Your task to perform on an android device: clear all cookies in the chrome app Image 0: 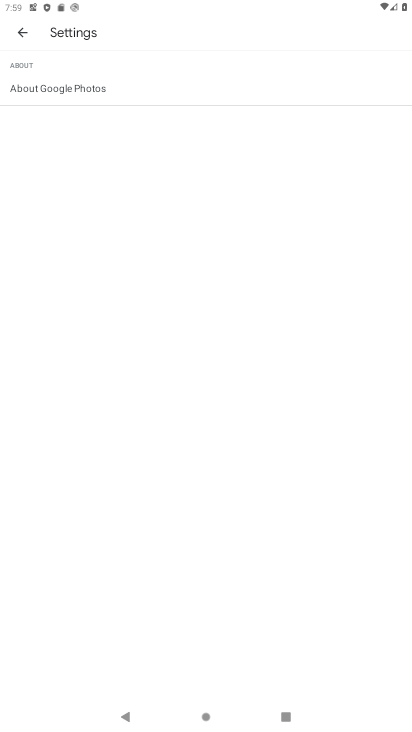
Step 0: press home button
Your task to perform on an android device: clear all cookies in the chrome app Image 1: 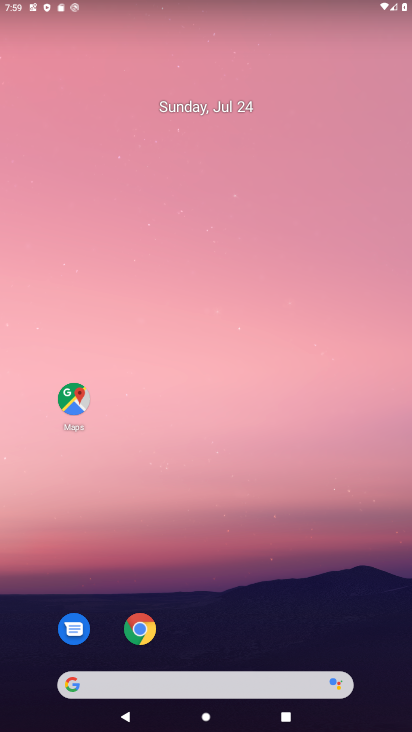
Step 1: drag from (190, 680) to (212, 2)
Your task to perform on an android device: clear all cookies in the chrome app Image 2: 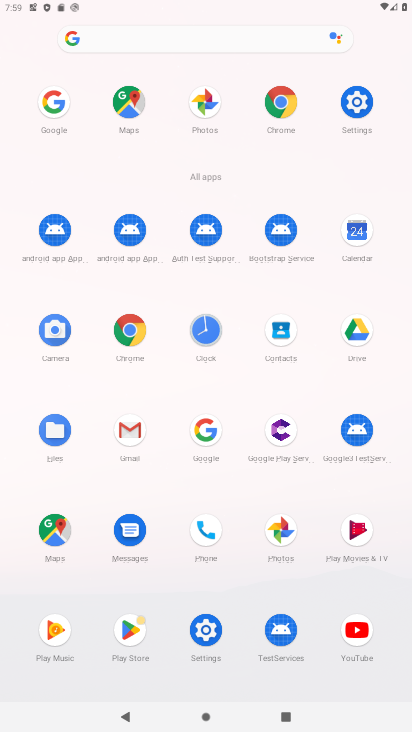
Step 2: click (290, 121)
Your task to perform on an android device: clear all cookies in the chrome app Image 3: 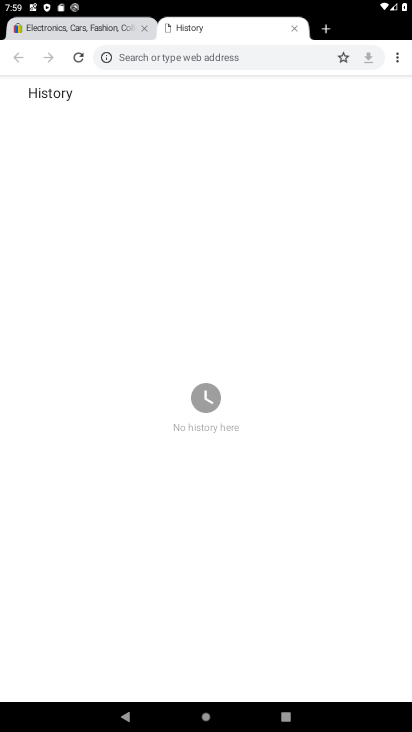
Step 3: click (394, 61)
Your task to perform on an android device: clear all cookies in the chrome app Image 4: 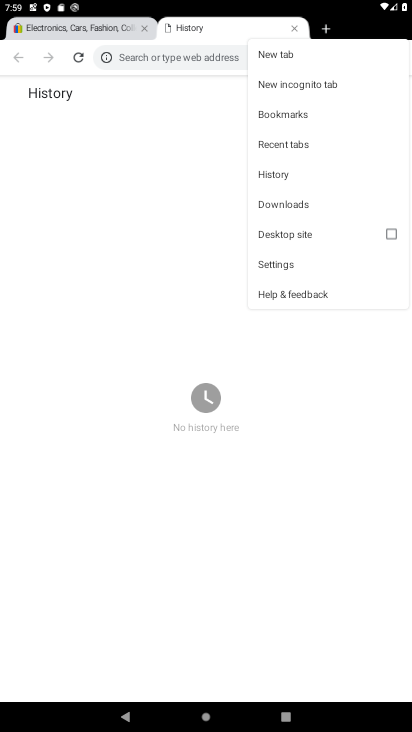
Step 4: click (275, 178)
Your task to perform on an android device: clear all cookies in the chrome app Image 5: 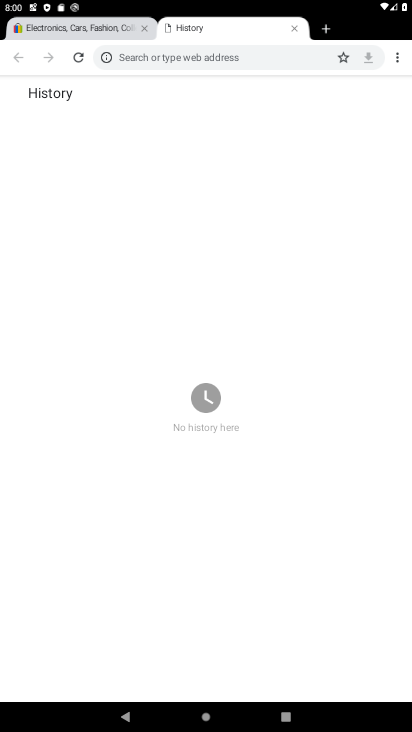
Step 5: click (398, 58)
Your task to perform on an android device: clear all cookies in the chrome app Image 6: 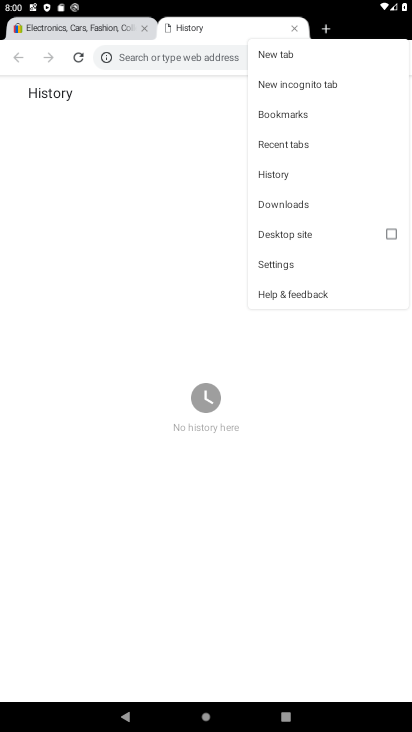
Step 6: task complete